Your task to perform on an android device: Search for the best rated kitchen reno kits on Lowes.com Image 0: 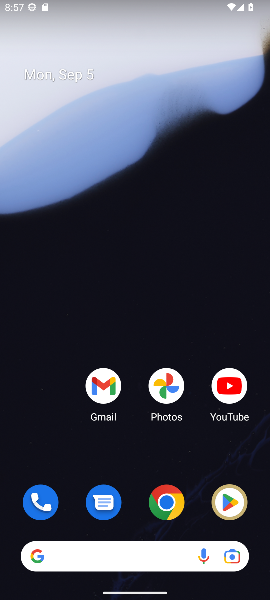
Step 0: drag from (205, 465) to (80, 27)
Your task to perform on an android device: Search for the best rated kitchen reno kits on Lowes.com Image 1: 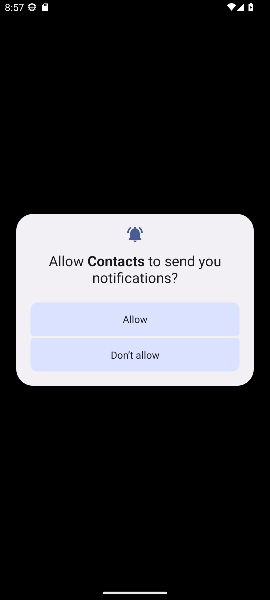
Step 1: click (98, 355)
Your task to perform on an android device: Search for the best rated kitchen reno kits on Lowes.com Image 2: 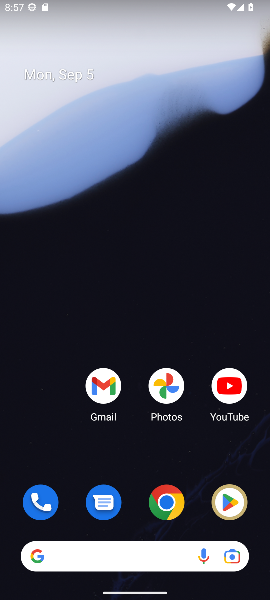
Step 2: drag from (57, 444) to (15, 20)
Your task to perform on an android device: Search for the best rated kitchen reno kits on Lowes.com Image 3: 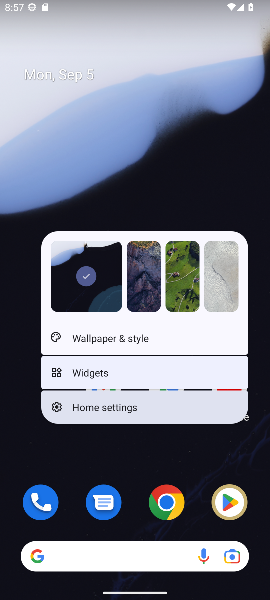
Step 3: click (104, 122)
Your task to perform on an android device: Search for the best rated kitchen reno kits on Lowes.com Image 4: 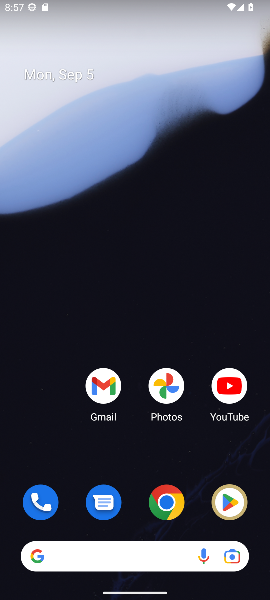
Step 4: drag from (262, 267) to (182, 32)
Your task to perform on an android device: Search for the best rated kitchen reno kits on Lowes.com Image 5: 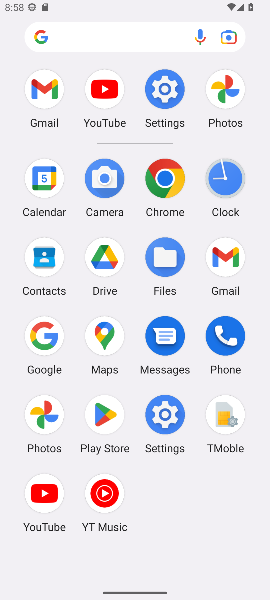
Step 5: click (39, 331)
Your task to perform on an android device: Search for the best rated kitchen reno kits on Lowes.com Image 6: 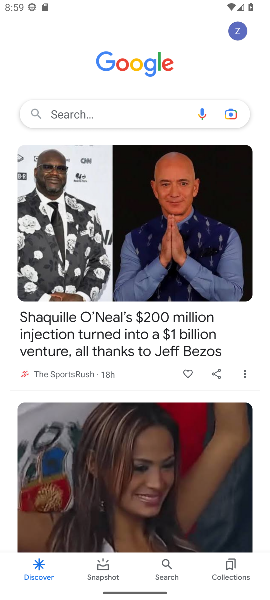
Step 6: click (60, 116)
Your task to perform on an android device: Search for the best rated kitchen reno kits on Lowes.com Image 7: 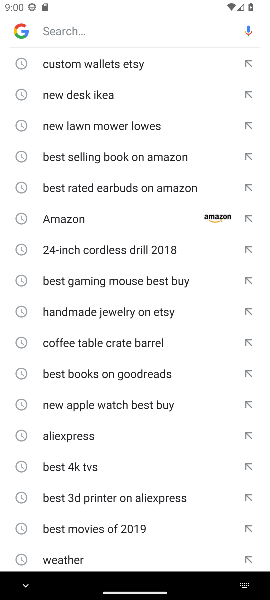
Step 7: type " best rated kitchen reno kits on Lowes.com"
Your task to perform on an android device: Search for the best rated kitchen reno kits on Lowes.com Image 8: 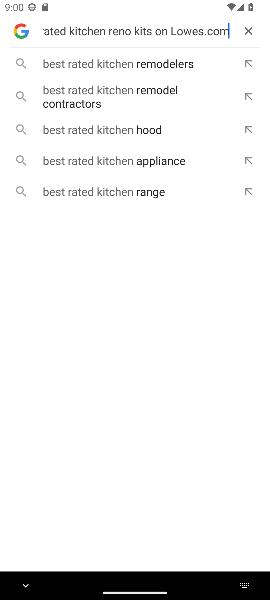
Step 8: click (77, 60)
Your task to perform on an android device: Search for the best rated kitchen reno kits on Lowes.com Image 9: 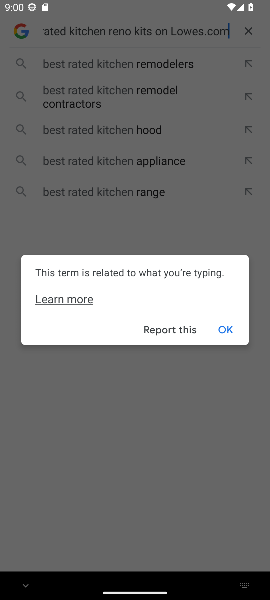
Step 9: task complete